Your task to perform on an android device: Show me recent news Image 0: 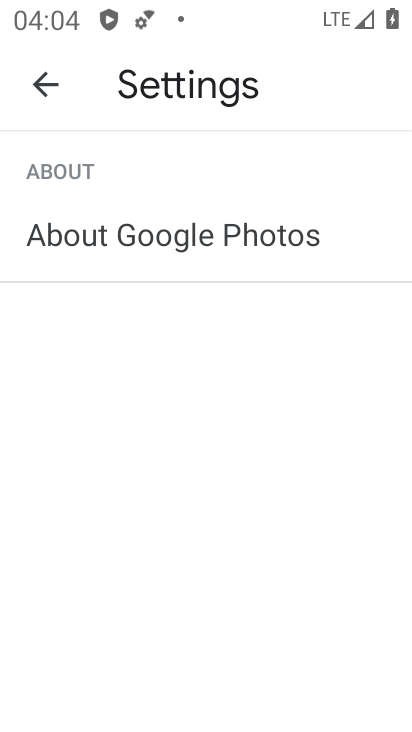
Step 0: press back button
Your task to perform on an android device: Show me recent news Image 1: 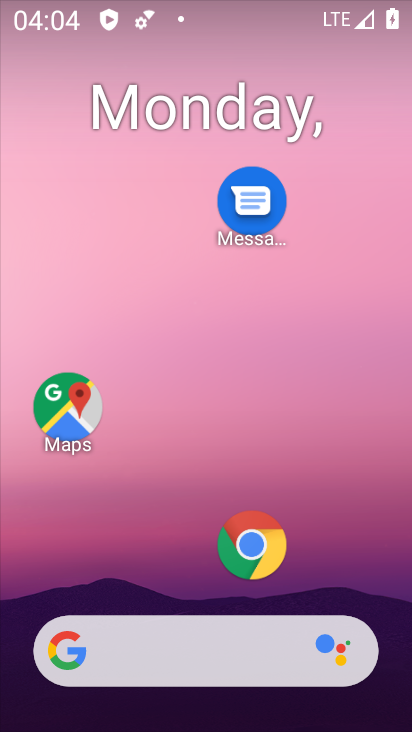
Step 1: click (192, 646)
Your task to perform on an android device: Show me recent news Image 2: 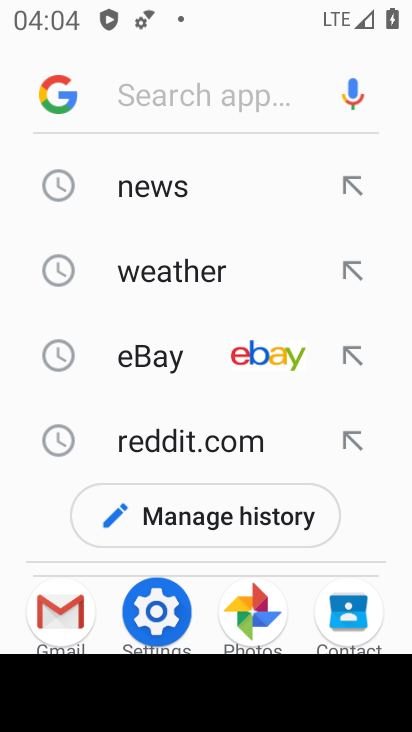
Step 2: click (160, 183)
Your task to perform on an android device: Show me recent news Image 3: 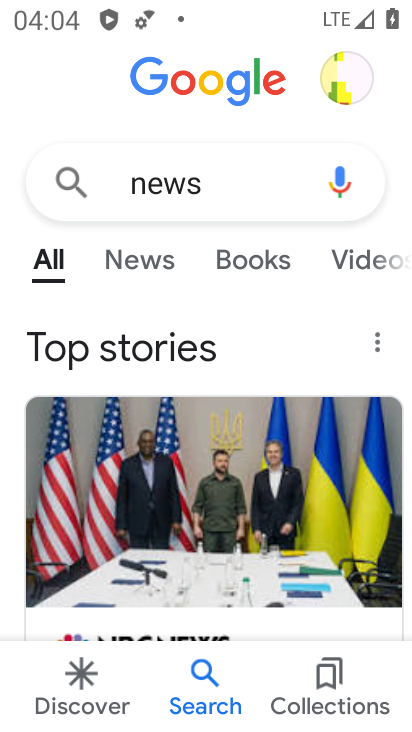
Step 3: task complete